Your task to perform on an android device: Find coffee shops on Maps Image 0: 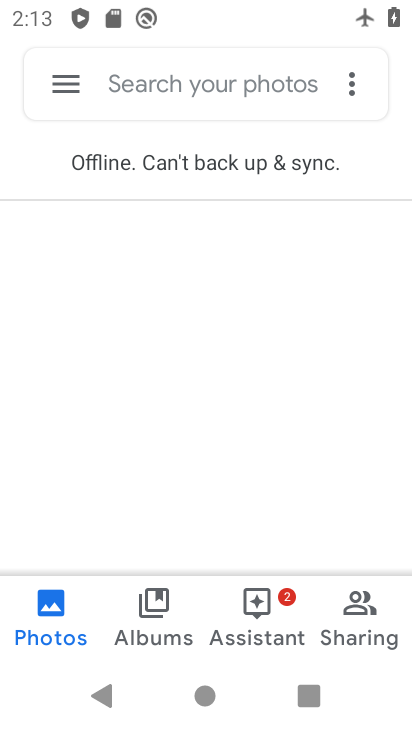
Step 0: press back button
Your task to perform on an android device: Find coffee shops on Maps Image 1: 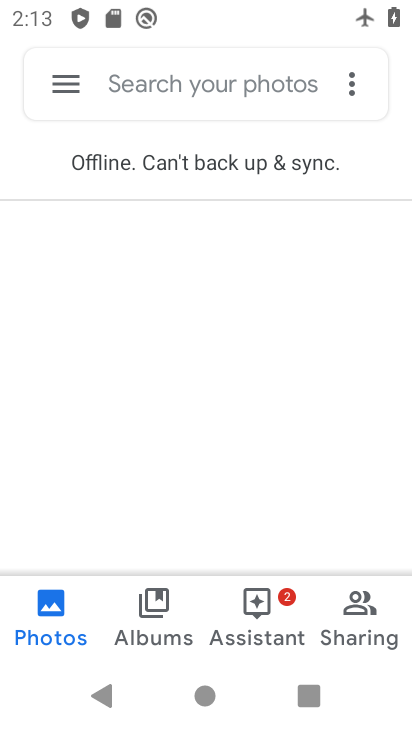
Step 1: press back button
Your task to perform on an android device: Find coffee shops on Maps Image 2: 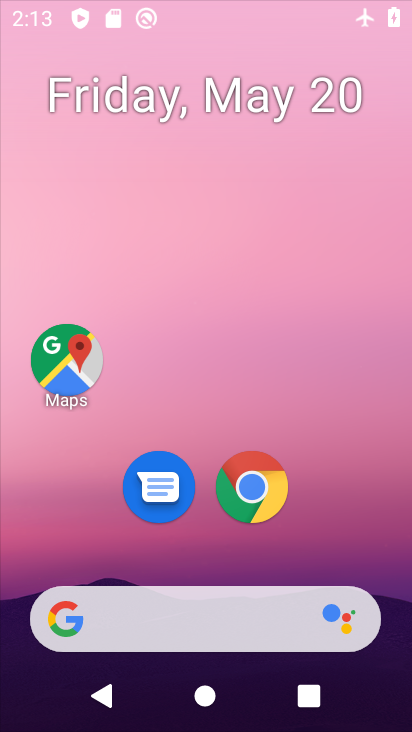
Step 2: press back button
Your task to perform on an android device: Find coffee shops on Maps Image 3: 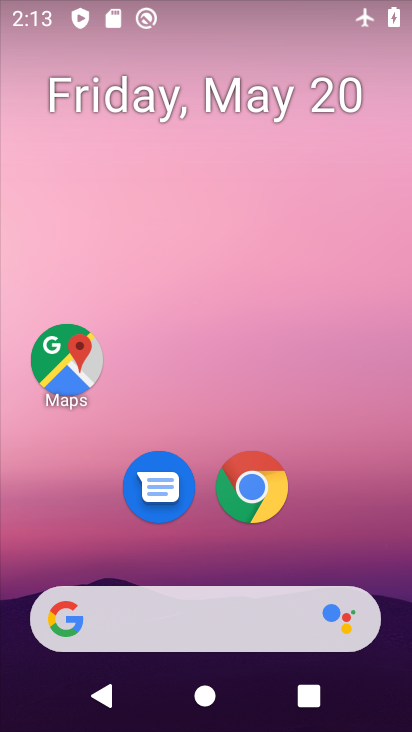
Step 3: drag from (225, 558) to (148, 99)
Your task to perform on an android device: Find coffee shops on Maps Image 4: 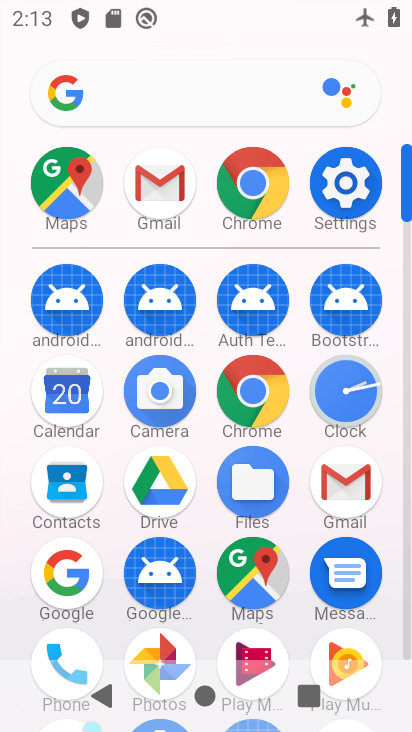
Step 4: click (248, 561)
Your task to perform on an android device: Find coffee shops on Maps Image 5: 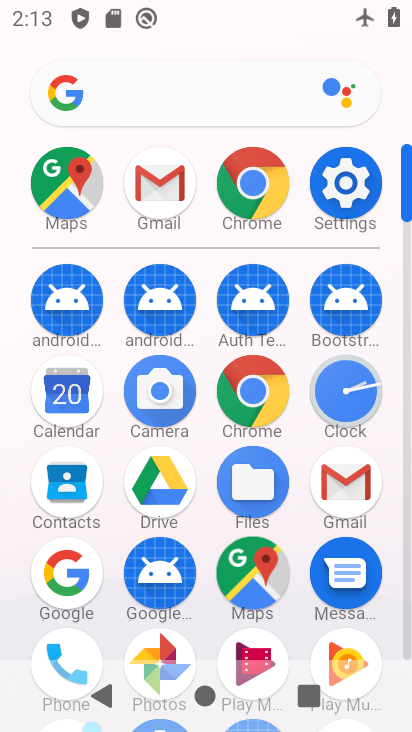
Step 5: click (248, 561)
Your task to perform on an android device: Find coffee shops on Maps Image 6: 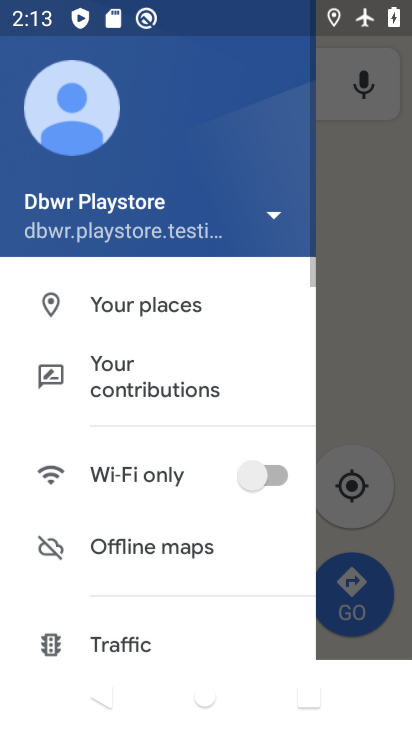
Step 6: click (268, 565)
Your task to perform on an android device: Find coffee shops on Maps Image 7: 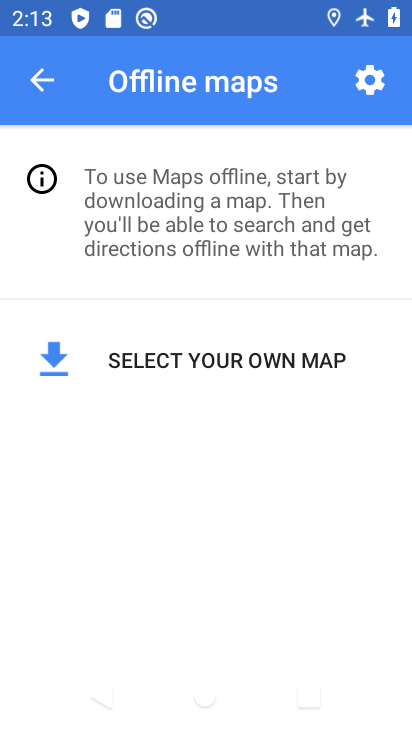
Step 7: drag from (50, 113) to (41, 79)
Your task to perform on an android device: Find coffee shops on Maps Image 8: 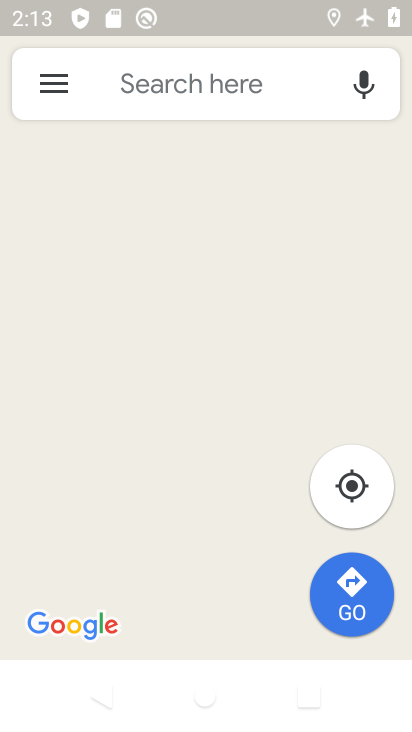
Step 8: click (52, 77)
Your task to perform on an android device: Find coffee shops on Maps Image 9: 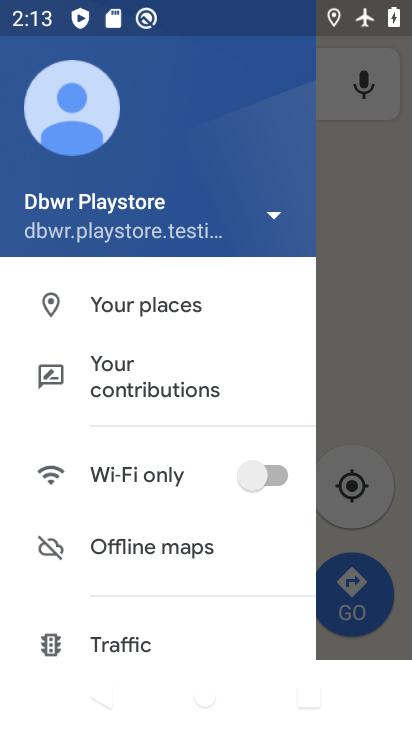
Step 9: click (353, 290)
Your task to perform on an android device: Find coffee shops on Maps Image 10: 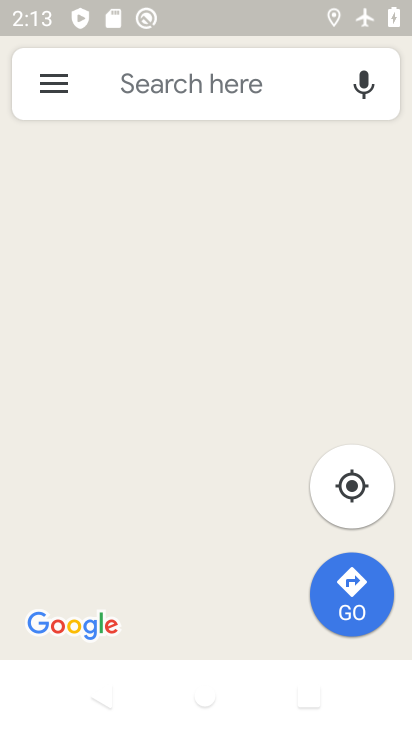
Step 10: click (142, 74)
Your task to perform on an android device: Find coffee shops on Maps Image 11: 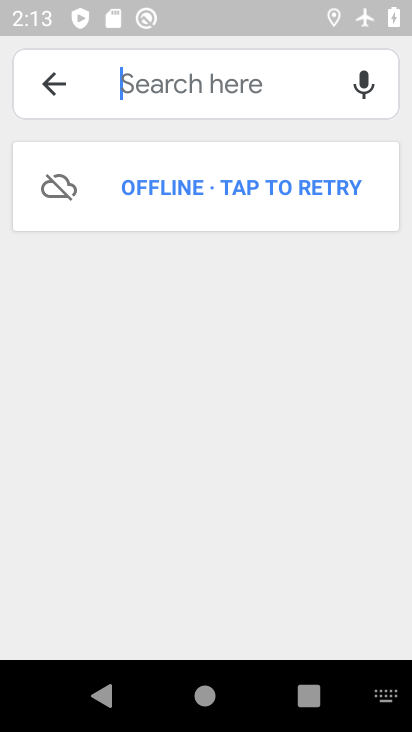
Step 11: type "coffee"
Your task to perform on an android device: Find coffee shops on Maps Image 12: 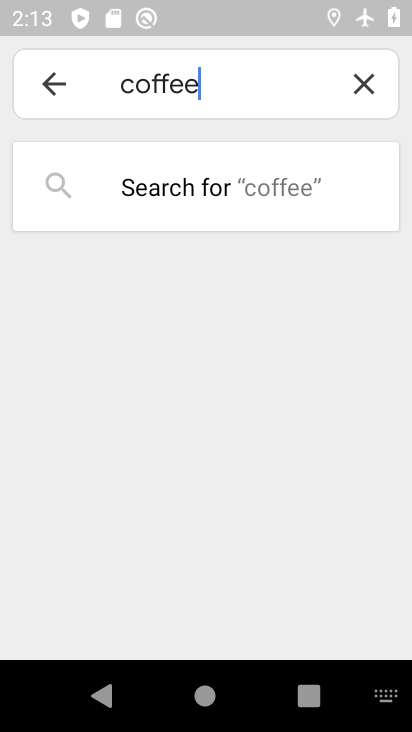
Step 12: click (289, 195)
Your task to perform on an android device: Find coffee shops on Maps Image 13: 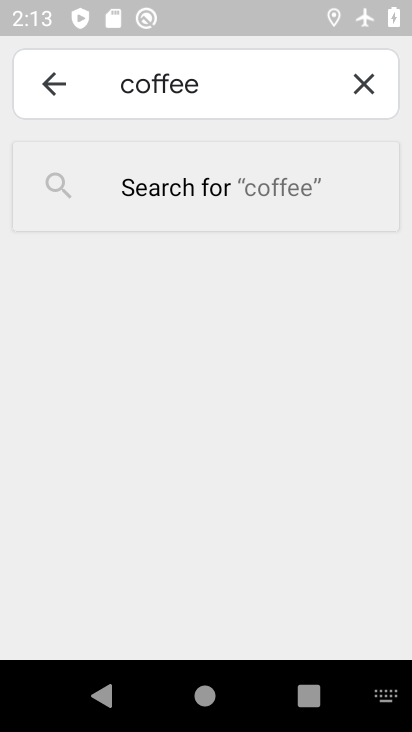
Step 13: click (289, 191)
Your task to perform on an android device: Find coffee shops on Maps Image 14: 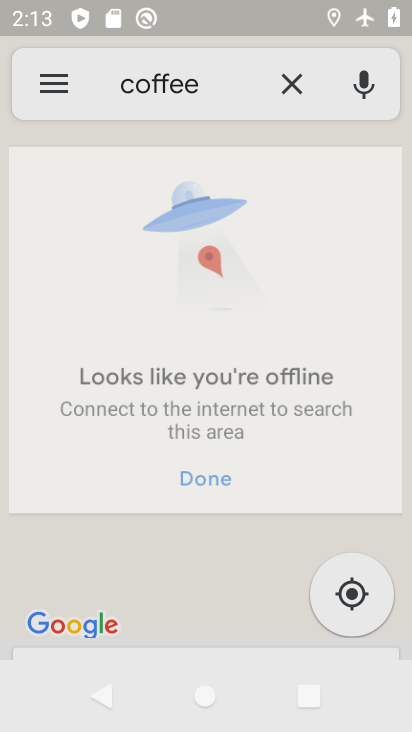
Step 14: click (293, 190)
Your task to perform on an android device: Find coffee shops on Maps Image 15: 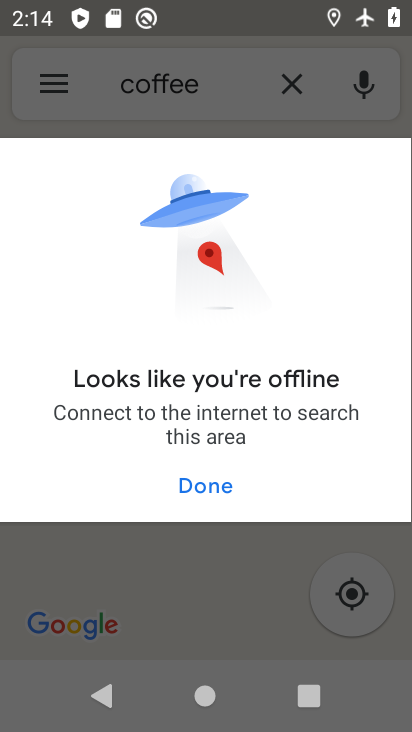
Step 15: task complete